Your task to perform on an android device: turn on javascript in the chrome app Image 0: 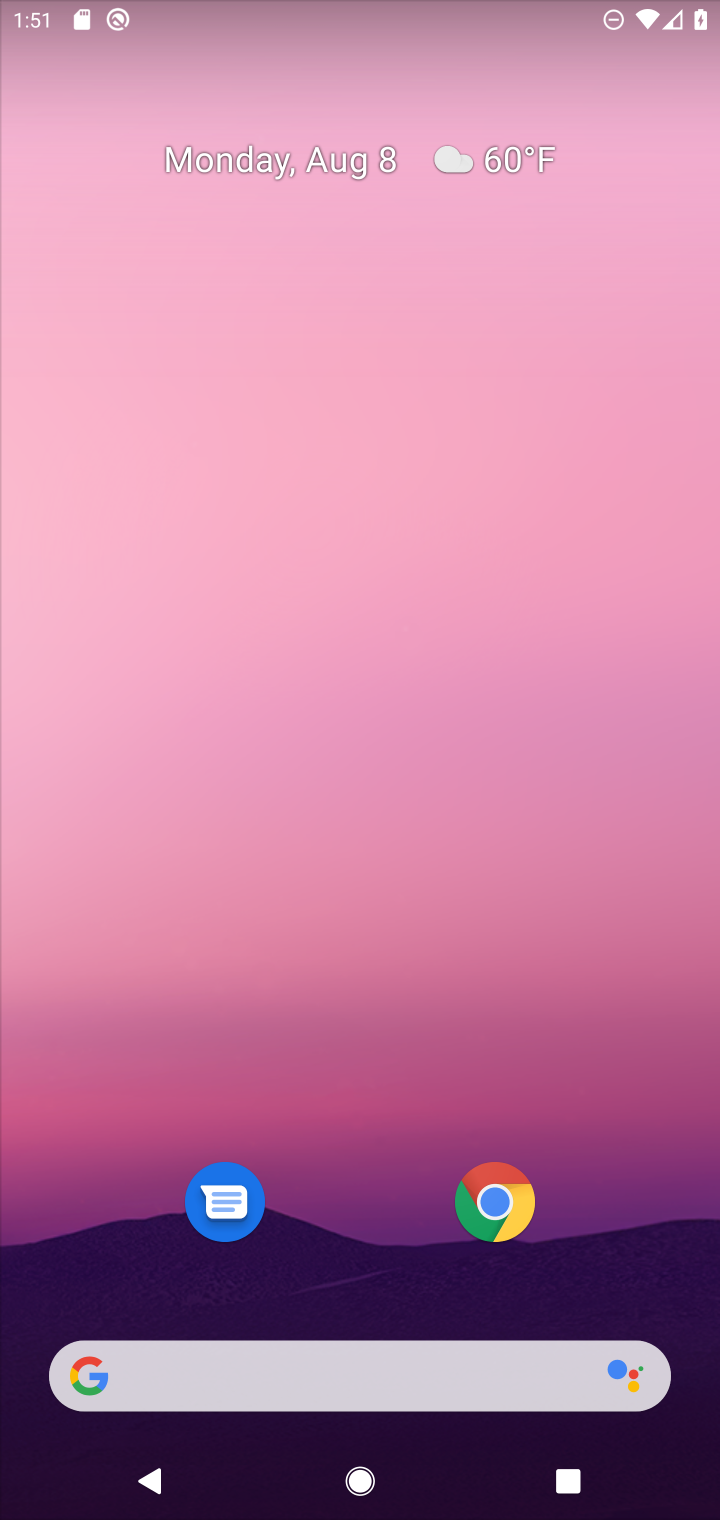
Step 0: press home button
Your task to perform on an android device: turn on javascript in the chrome app Image 1: 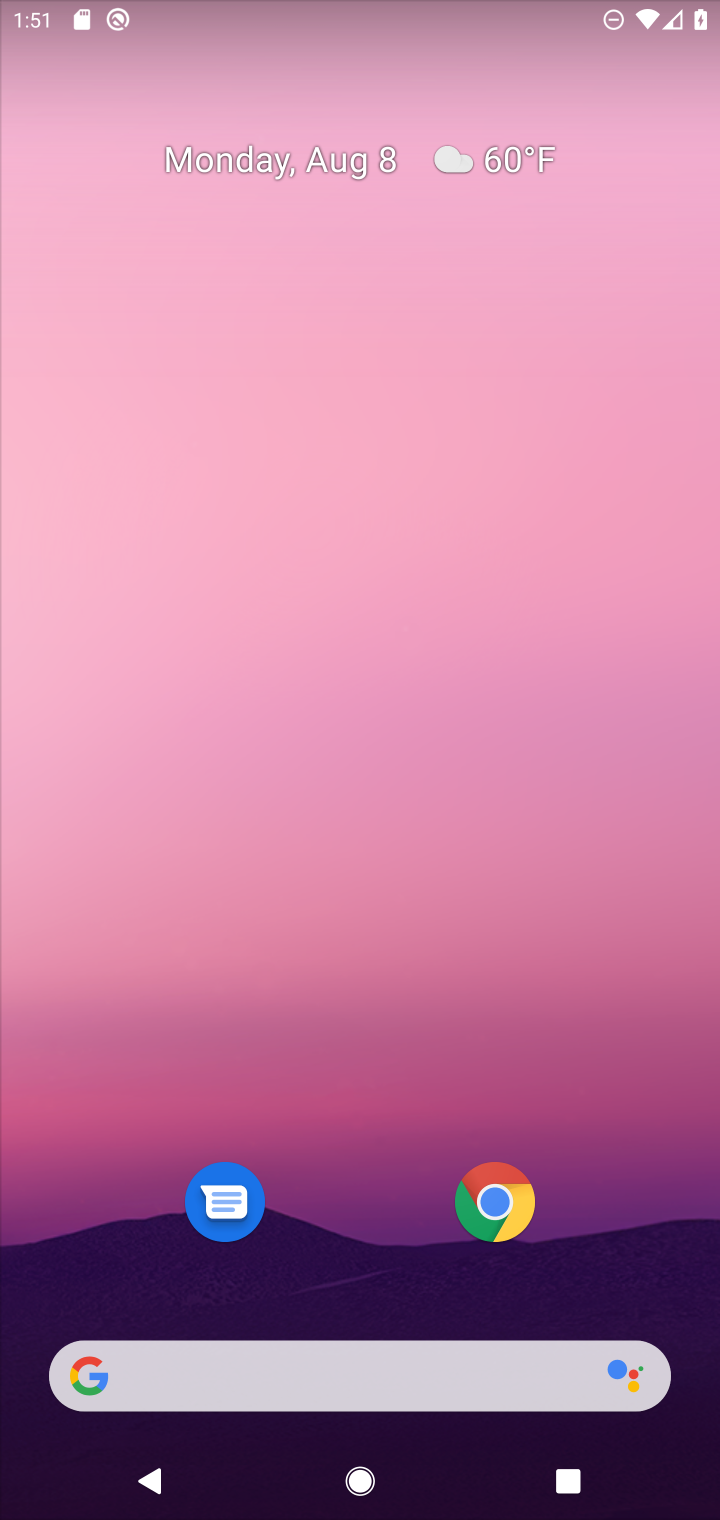
Step 1: drag from (337, 1072) to (485, 318)
Your task to perform on an android device: turn on javascript in the chrome app Image 2: 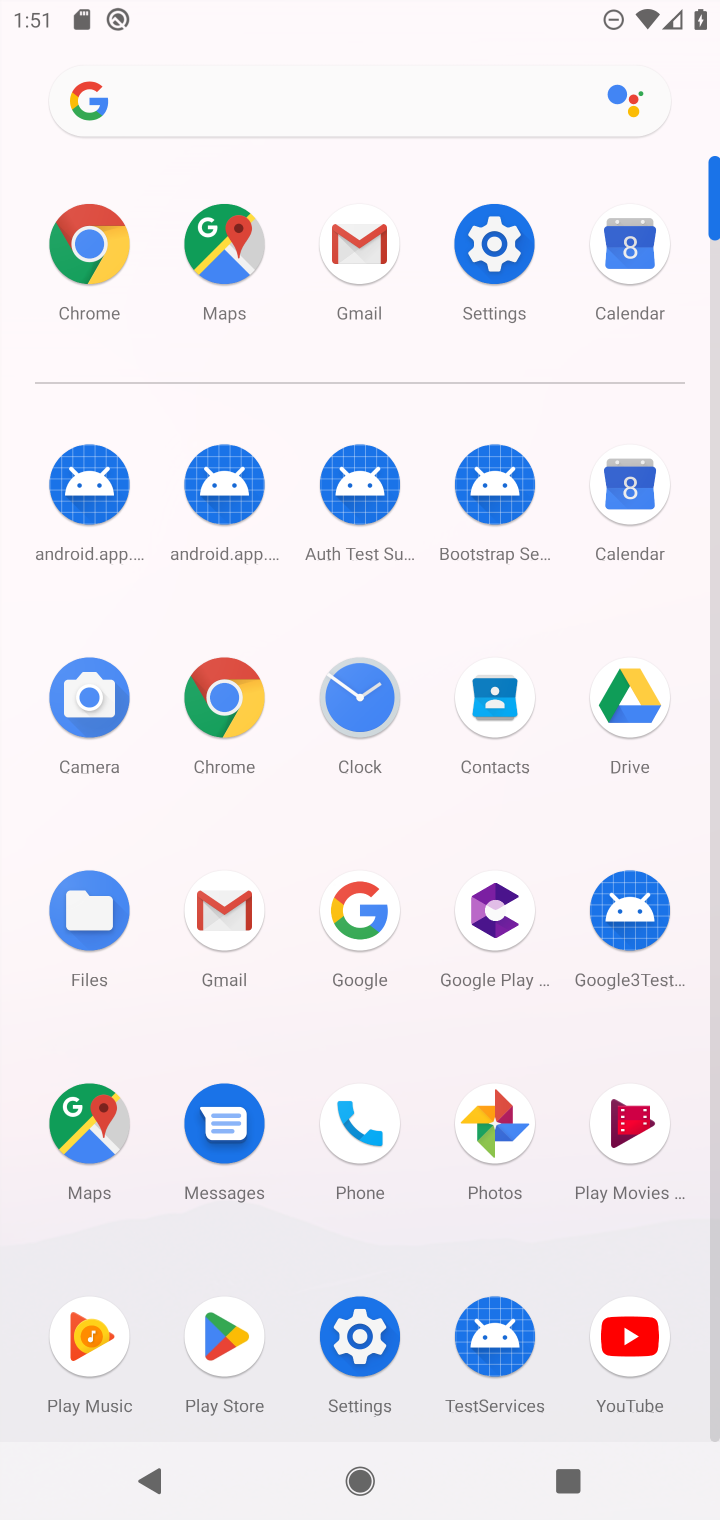
Step 2: click (221, 708)
Your task to perform on an android device: turn on javascript in the chrome app Image 3: 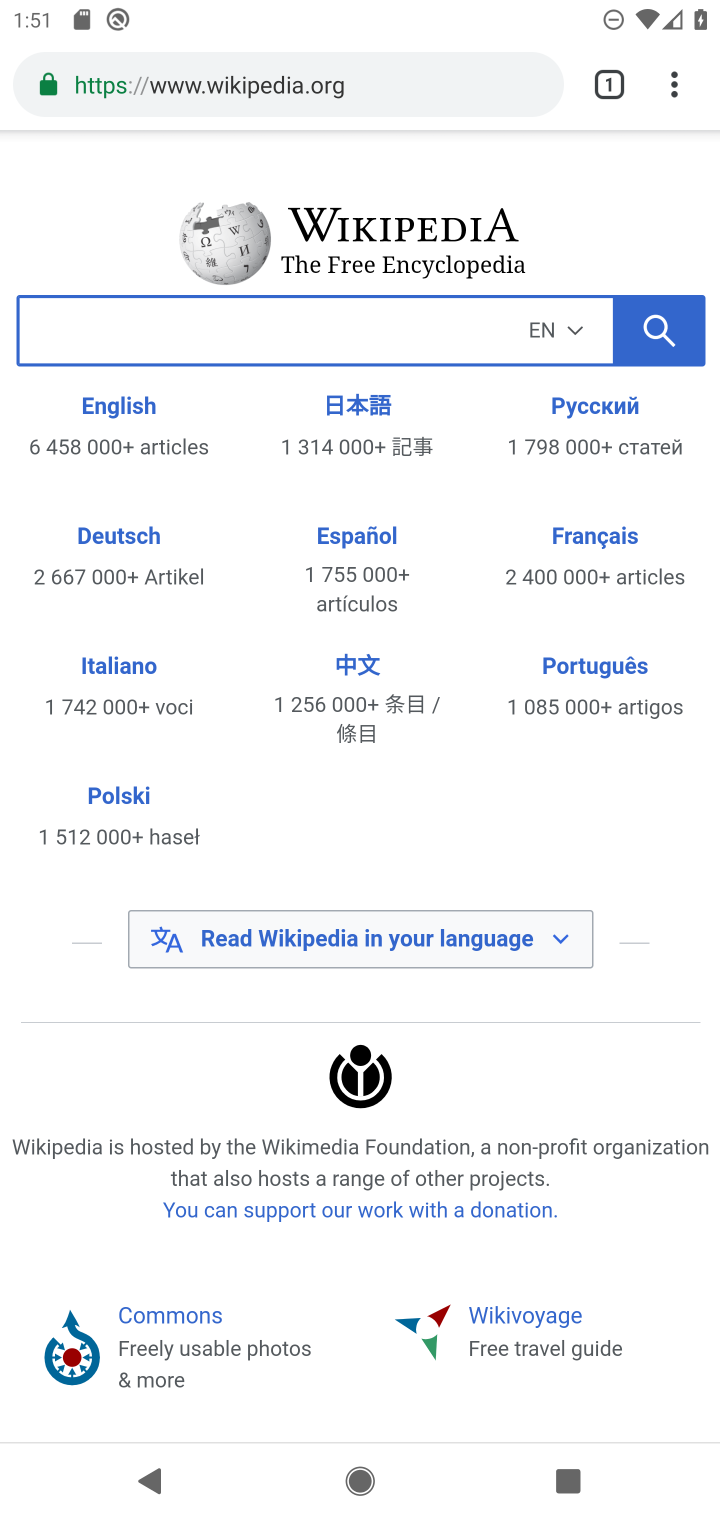
Step 3: click (671, 89)
Your task to perform on an android device: turn on javascript in the chrome app Image 4: 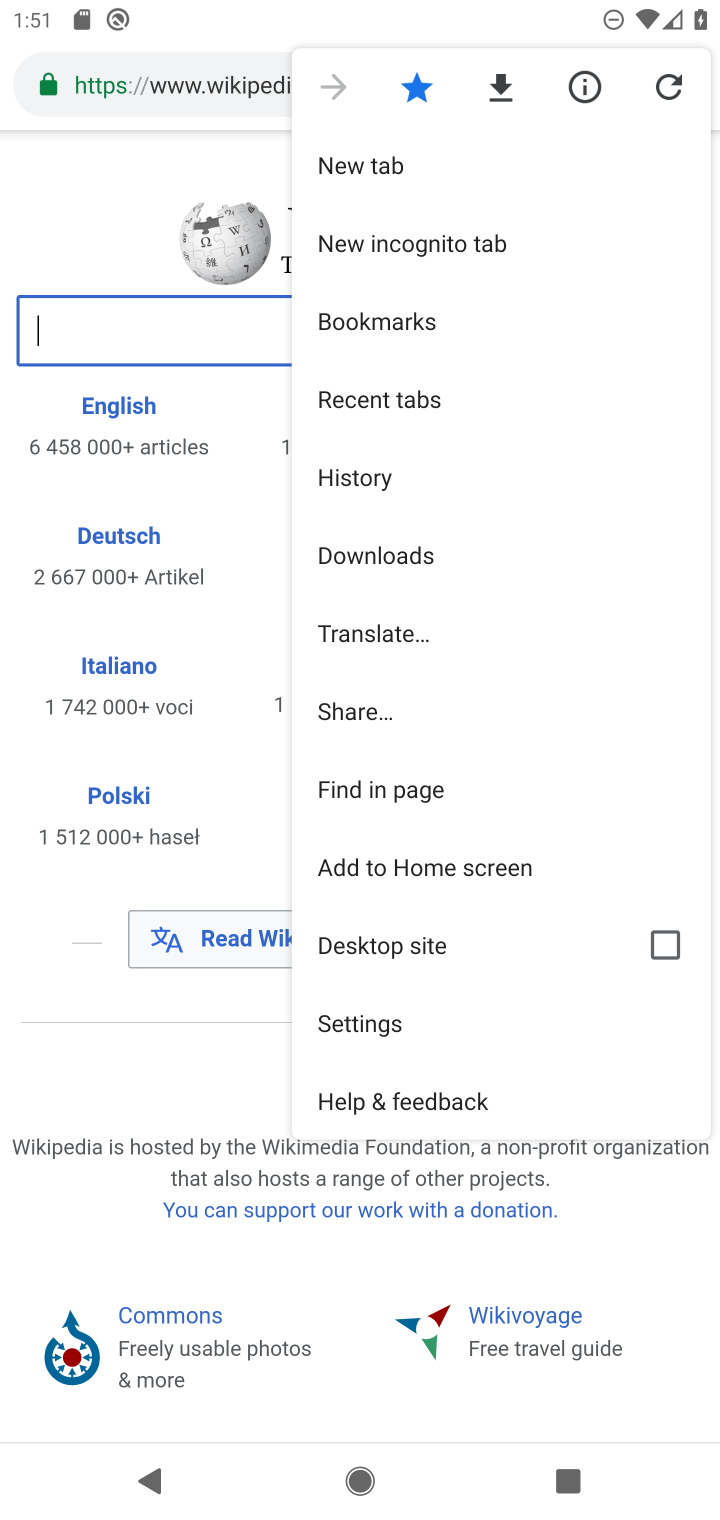
Step 4: drag from (507, 998) to (539, 743)
Your task to perform on an android device: turn on javascript in the chrome app Image 5: 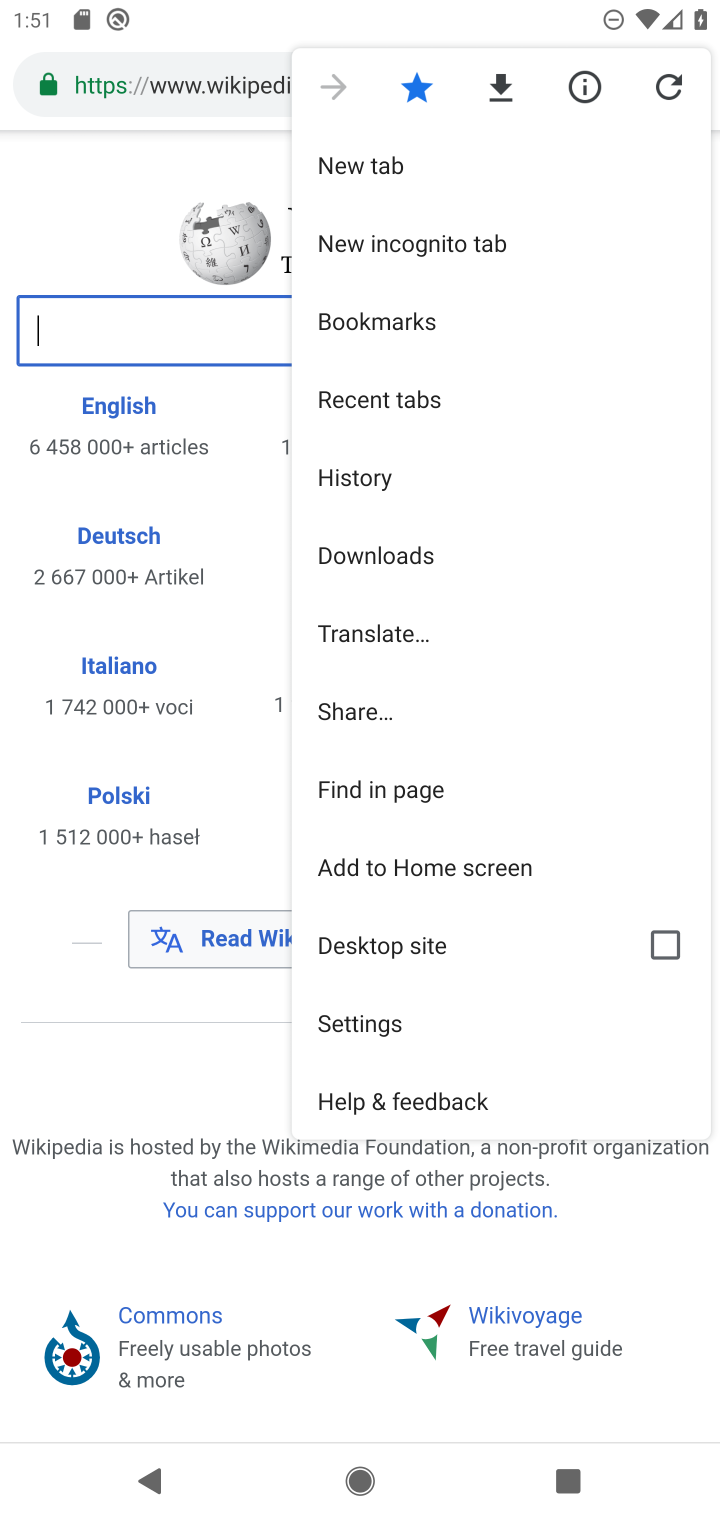
Step 5: click (392, 1024)
Your task to perform on an android device: turn on javascript in the chrome app Image 6: 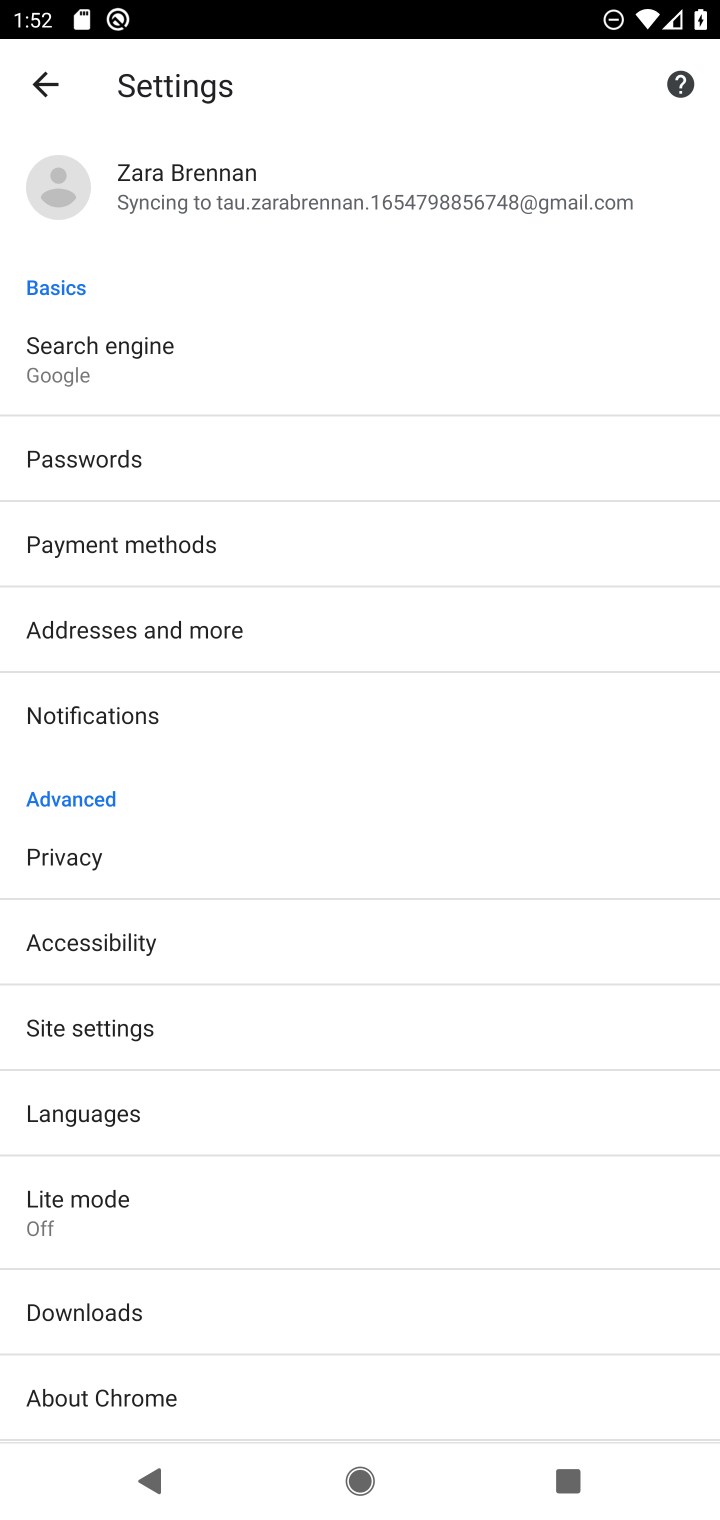
Step 6: drag from (400, 1022) to (449, 715)
Your task to perform on an android device: turn on javascript in the chrome app Image 7: 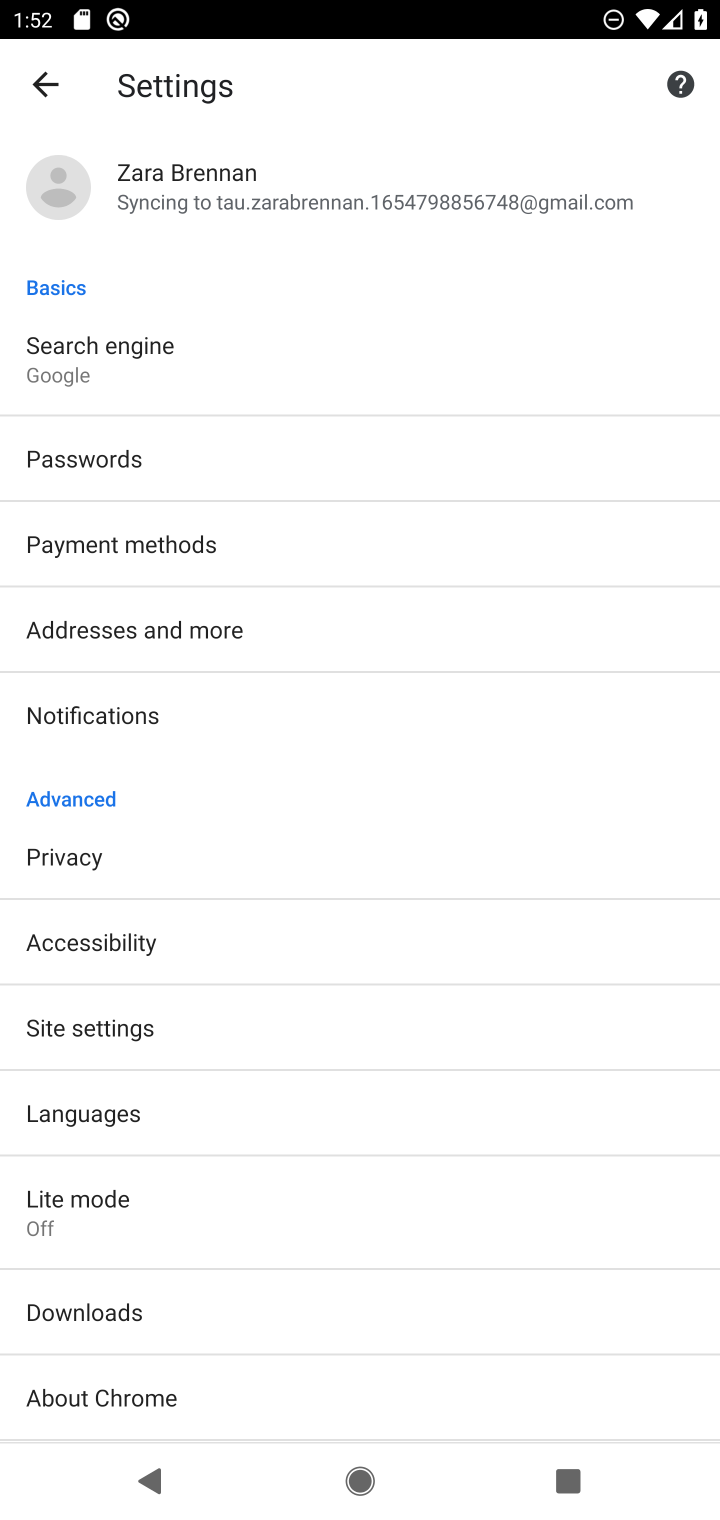
Step 7: click (362, 1032)
Your task to perform on an android device: turn on javascript in the chrome app Image 8: 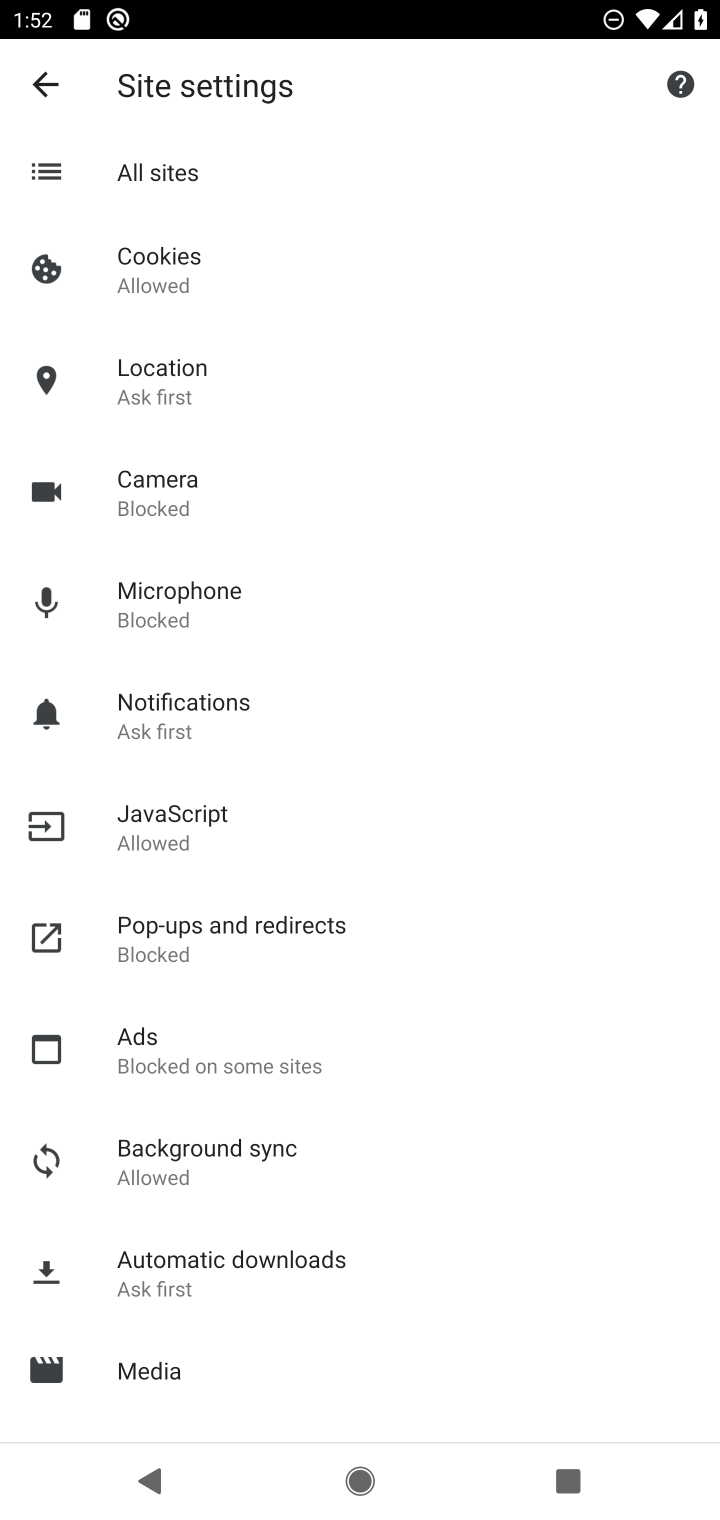
Step 8: drag from (513, 1145) to (521, 898)
Your task to perform on an android device: turn on javascript in the chrome app Image 9: 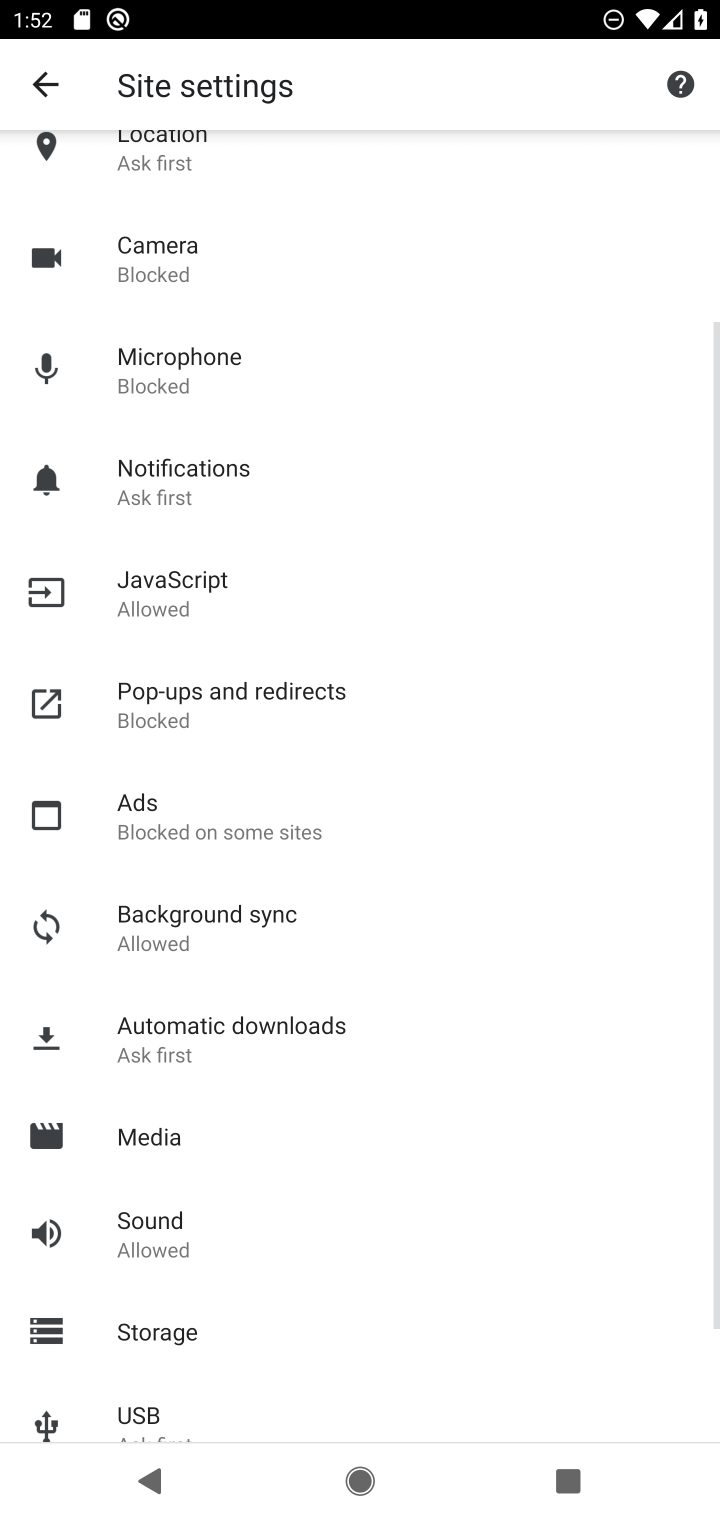
Step 9: click (483, 1018)
Your task to perform on an android device: turn on javascript in the chrome app Image 10: 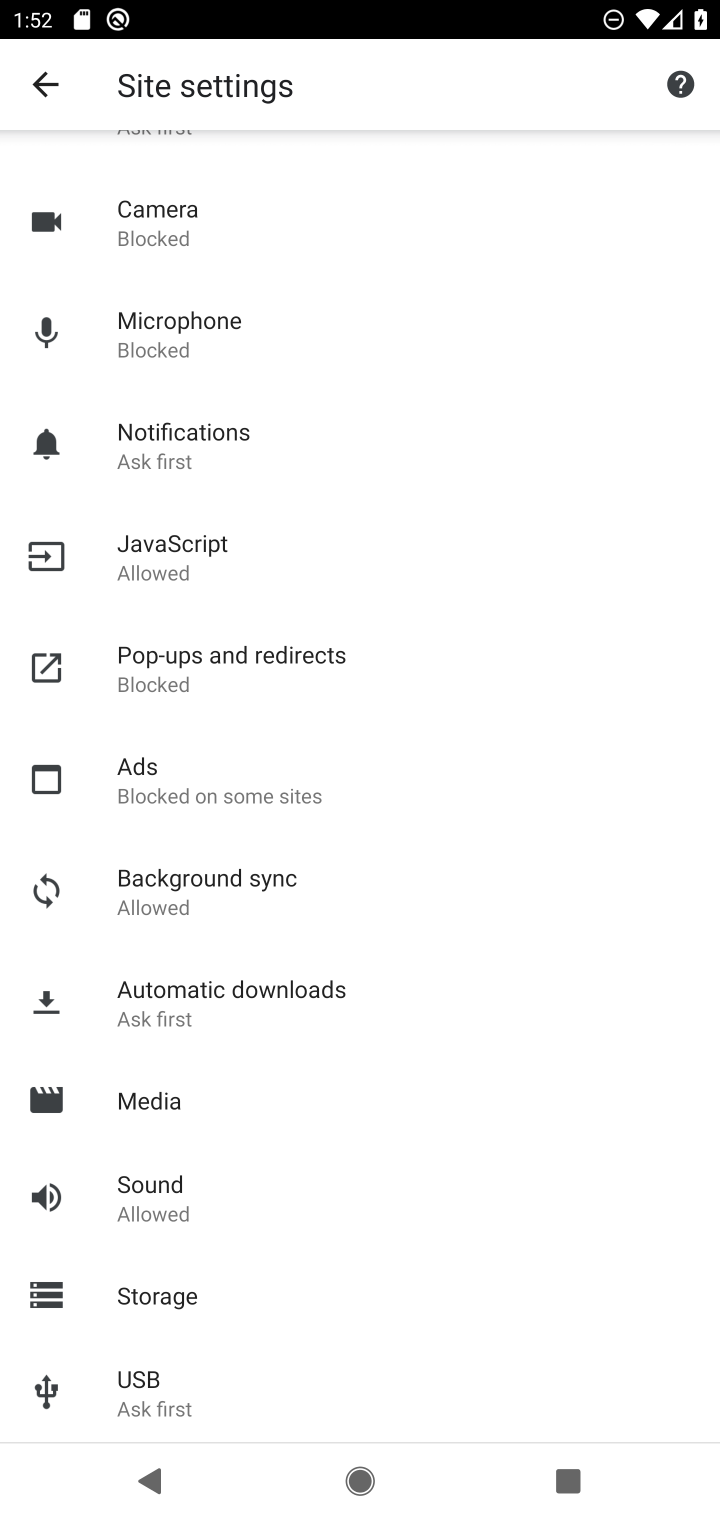
Step 10: drag from (417, 1335) to (470, 1011)
Your task to perform on an android device: turn on javascript in the chrome app Image 11: 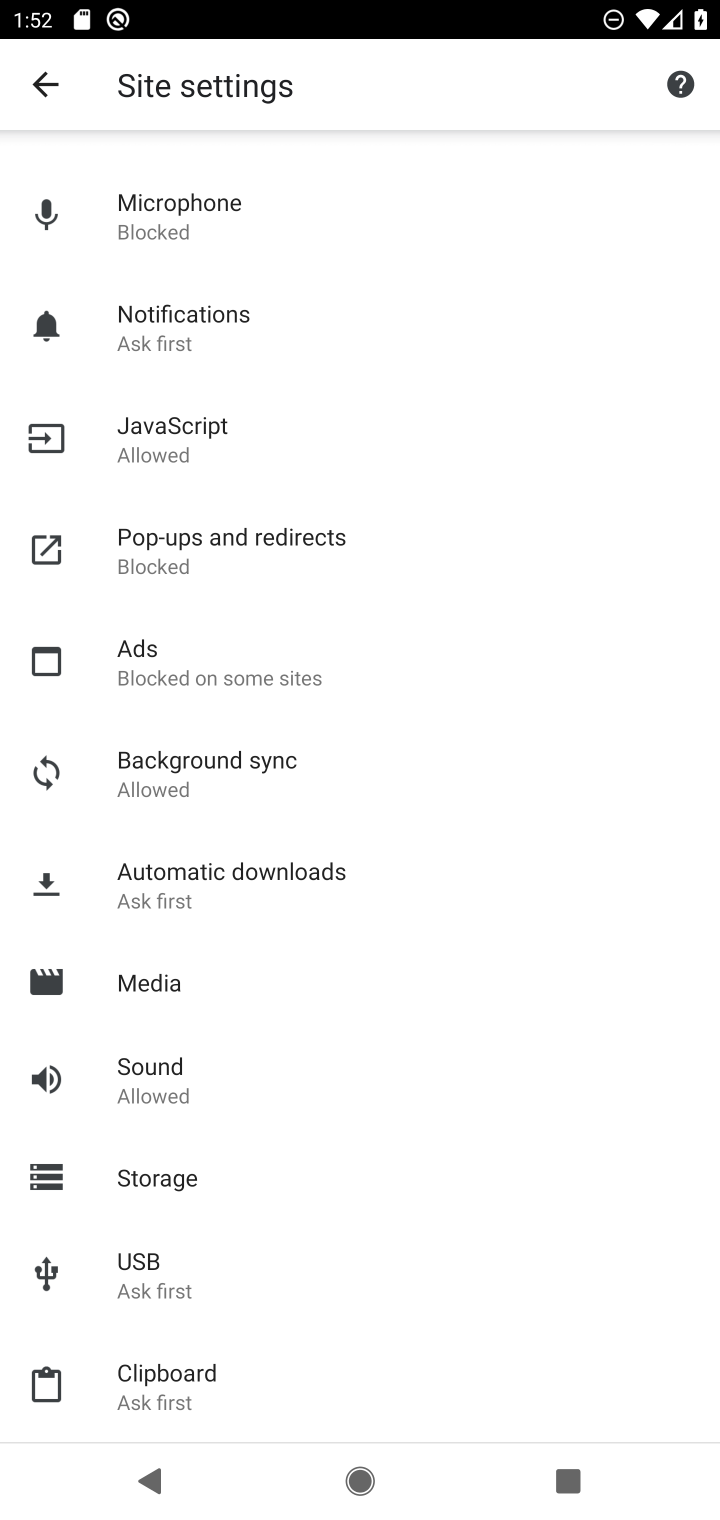
Step 11: drag from (458, 727) to (422, 1066)
Your task to perform on an android device: turn on javascript in the chrome app Image 12: 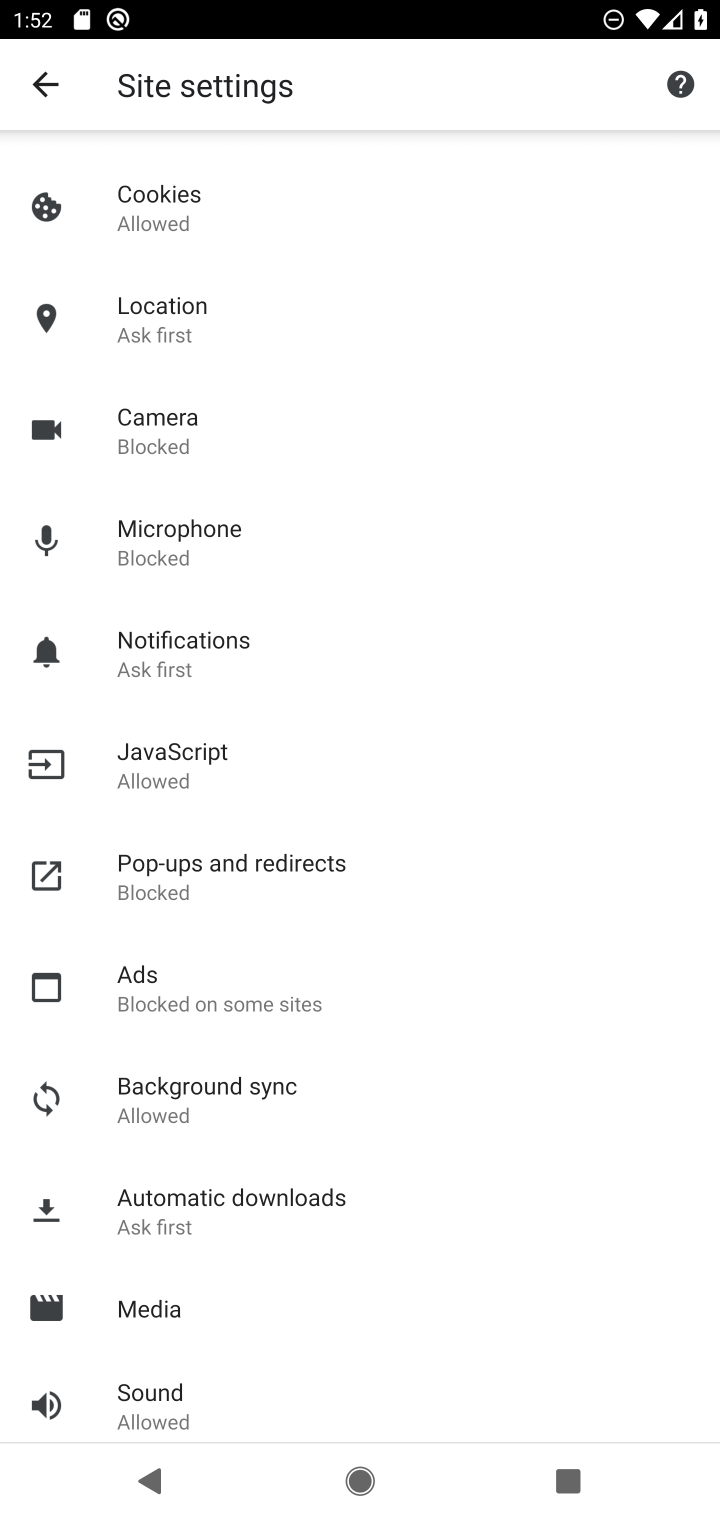
Step 12: drag from (461, 693) to (450, 1069)
Your task to perform on an android device: turn on javascript in the chrome app Image 13: 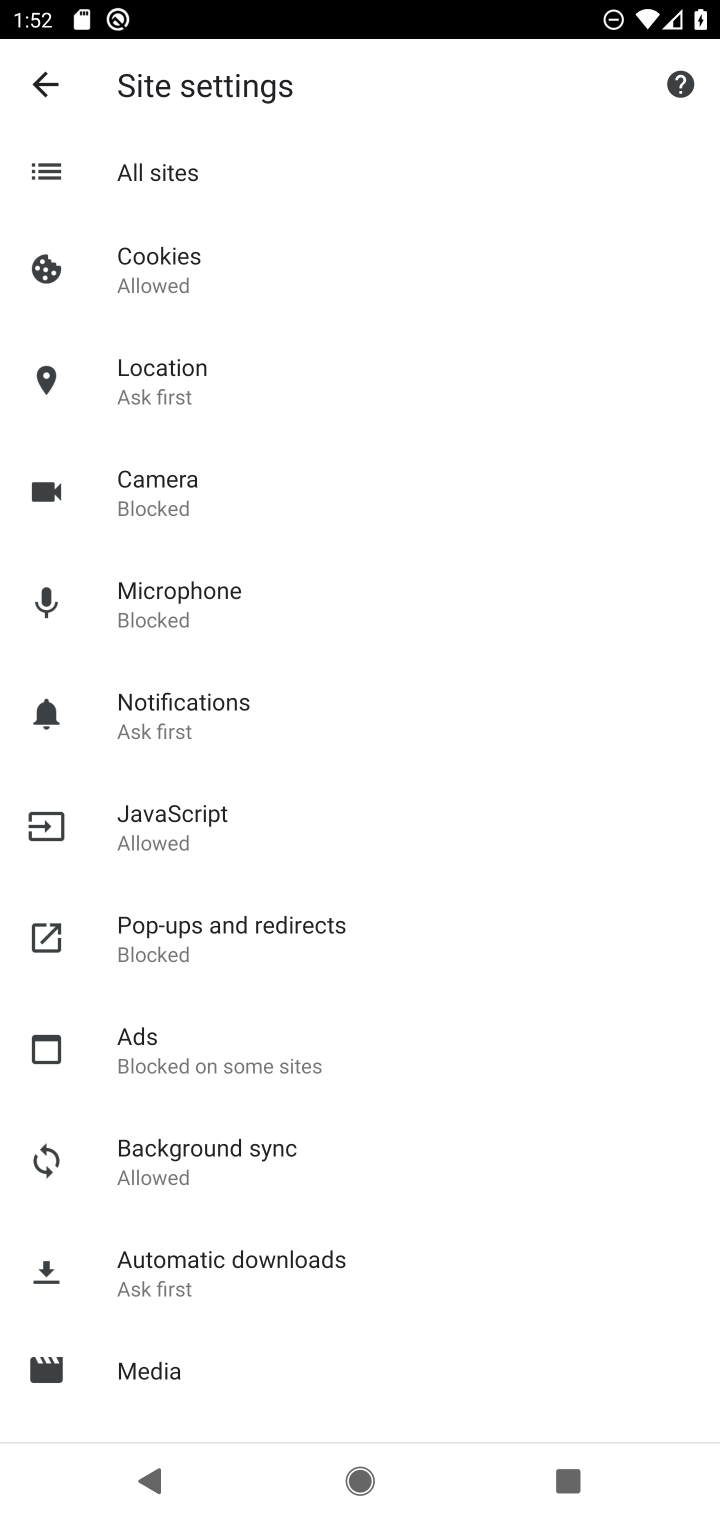
Step 13: drag from (436, 910) to (445, 1127)
Your task to perform on an android device: turn on javascript in the chrome app Image 14: 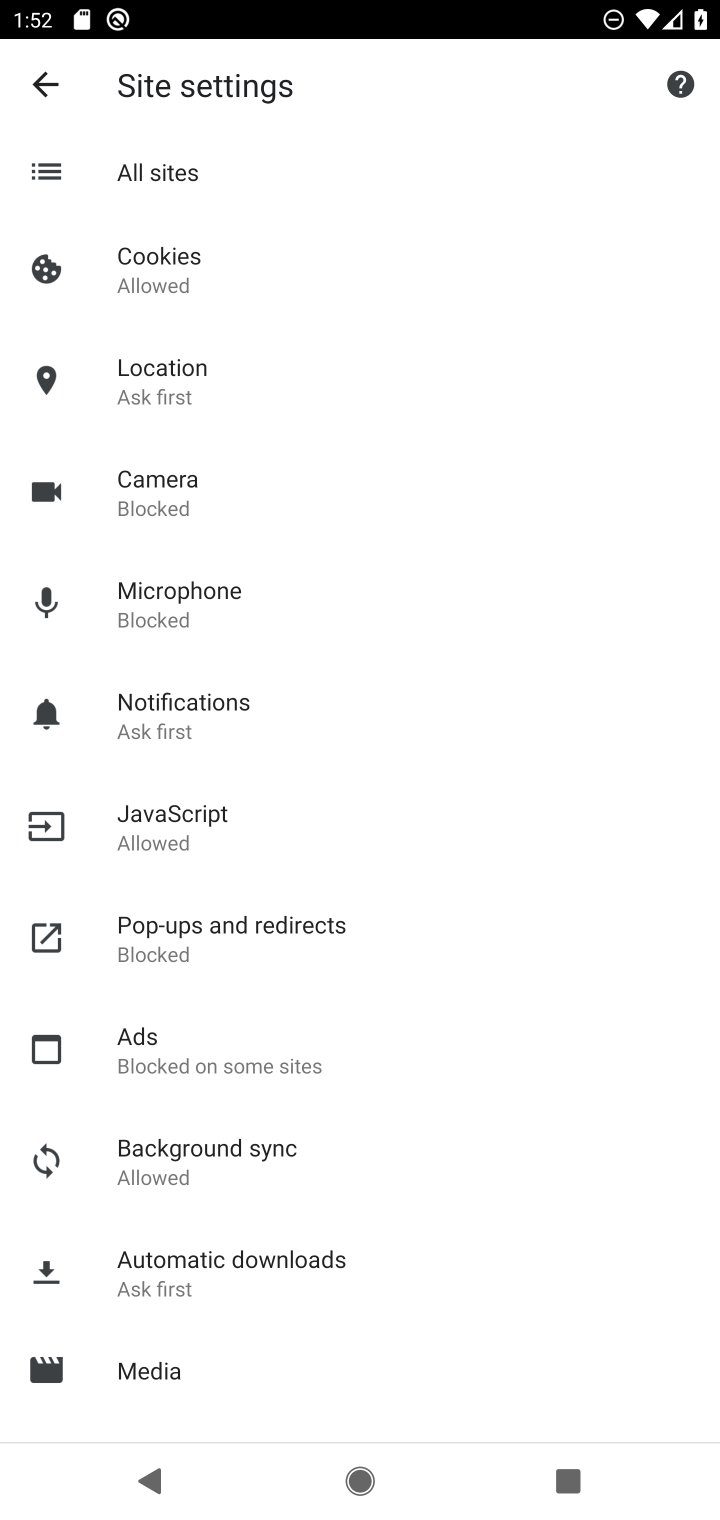
Step 14: click (225, 813)
Your task to perform on an android device: turn on javascript in the chrome app Image 15: 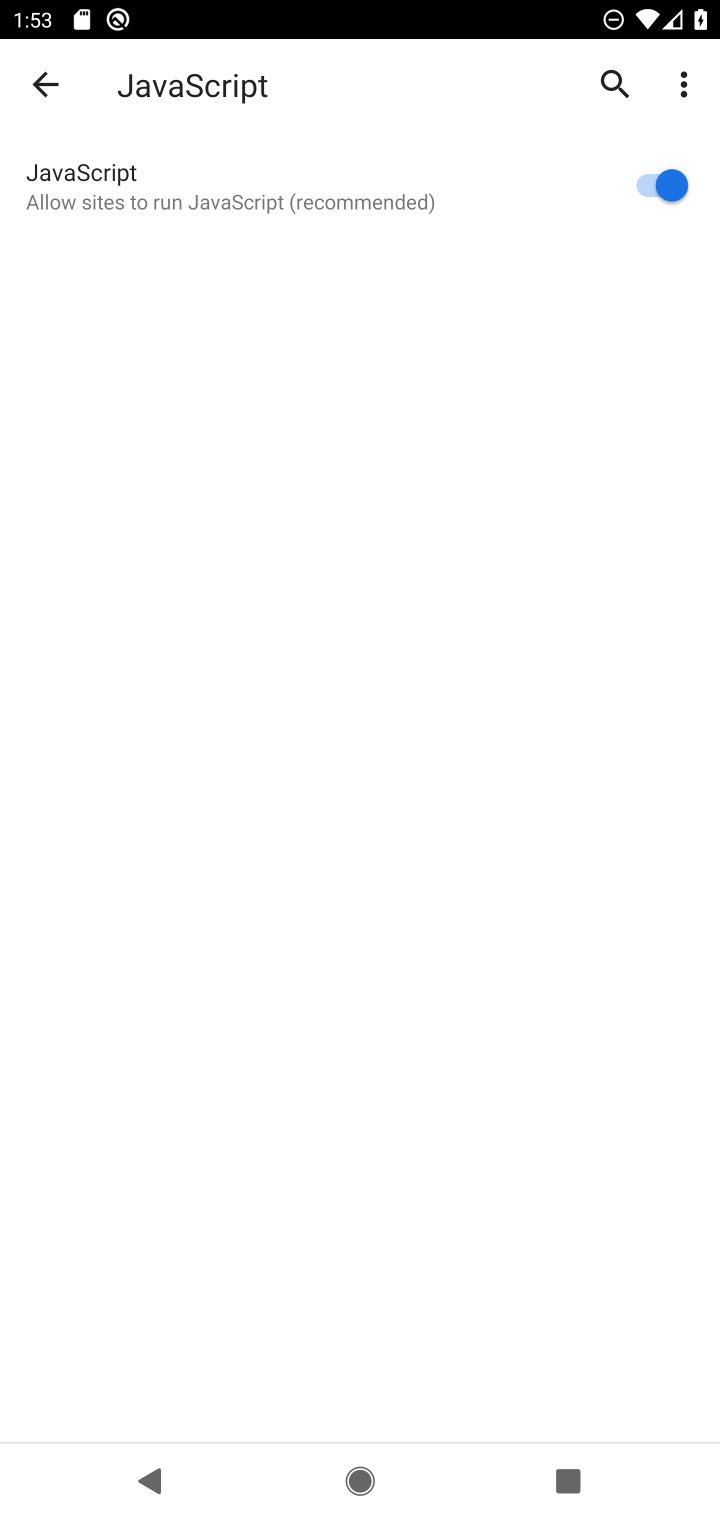
Step 15: task complete